Your task to perform on an android device: change your default location settings in chrome Image 0: 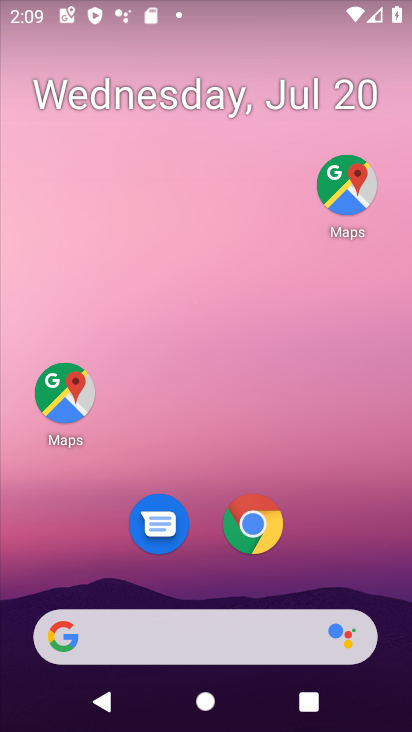
Step 0: click (279, 529)
Your task to perform on an android device: change your default location settings in chrome Image 1: 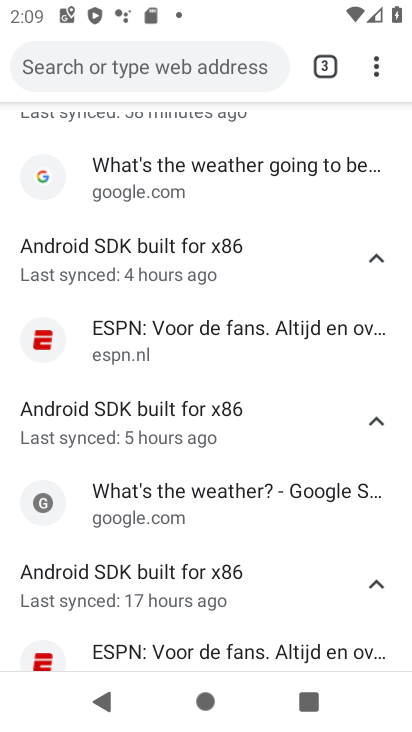
Step 1: click (372, 56)
Your task to perform on an android device: change your default location settings in chrome Image 2: 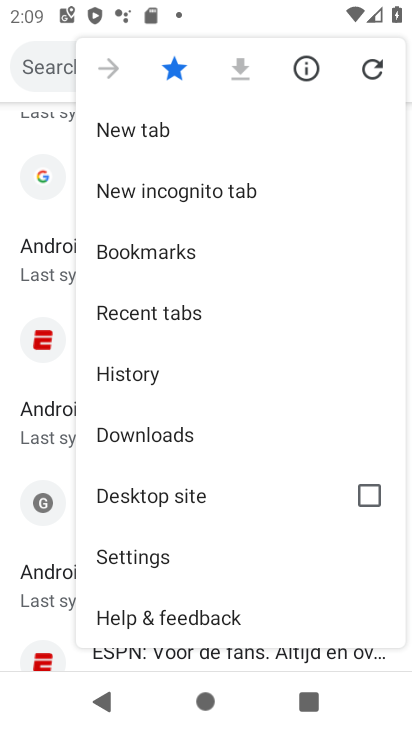
Step 2: click (160, 555)
Your task to perform on an android device: change your default location settings in chrome Image 3: 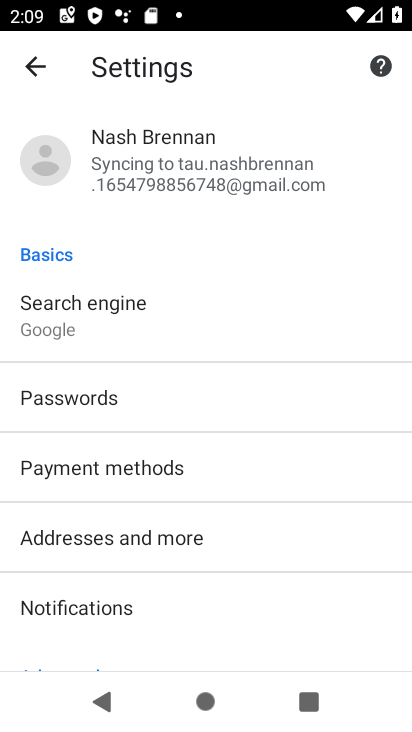
Step 3: drag from (227, 586) to (368, 359)
Your task to perform on an android device: change your default location settings in chrome Image 4: 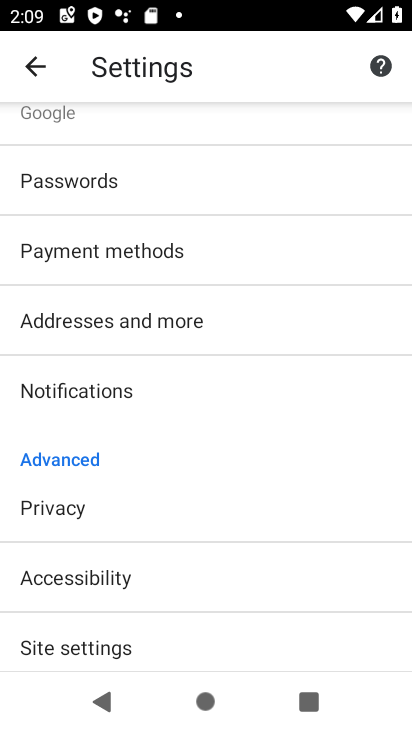
Step 4: click (174, 637)
Your task to perform on an android device: change your default location settings in chrome Image 5: 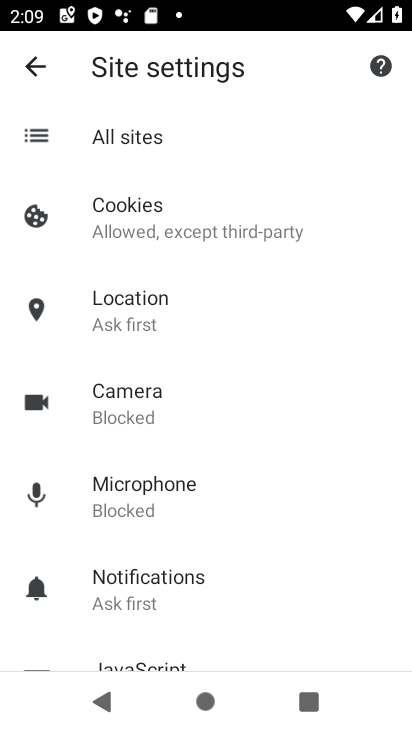
Step 5: click (120, 308)
Your task to perform on an android device: change your default location settings in chrome Image 6: 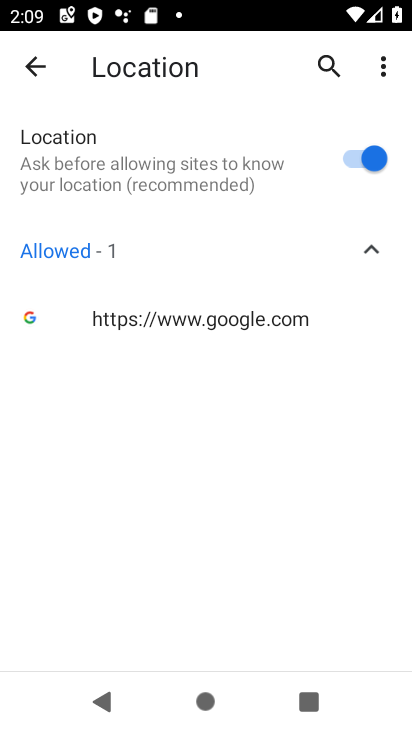
Step 6: click (362, 155)
Your task to perform on an android device: change your default location settings in chrome Image 7: 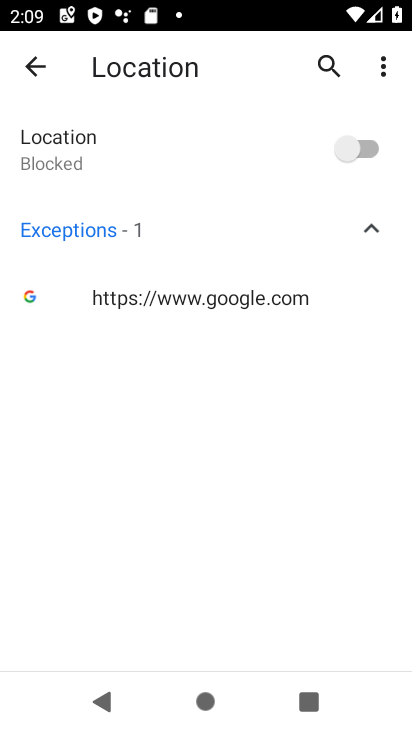
Step 7: task complete